Your task to perform on an android device: Open calendar and show me the third week of next month Image 0: 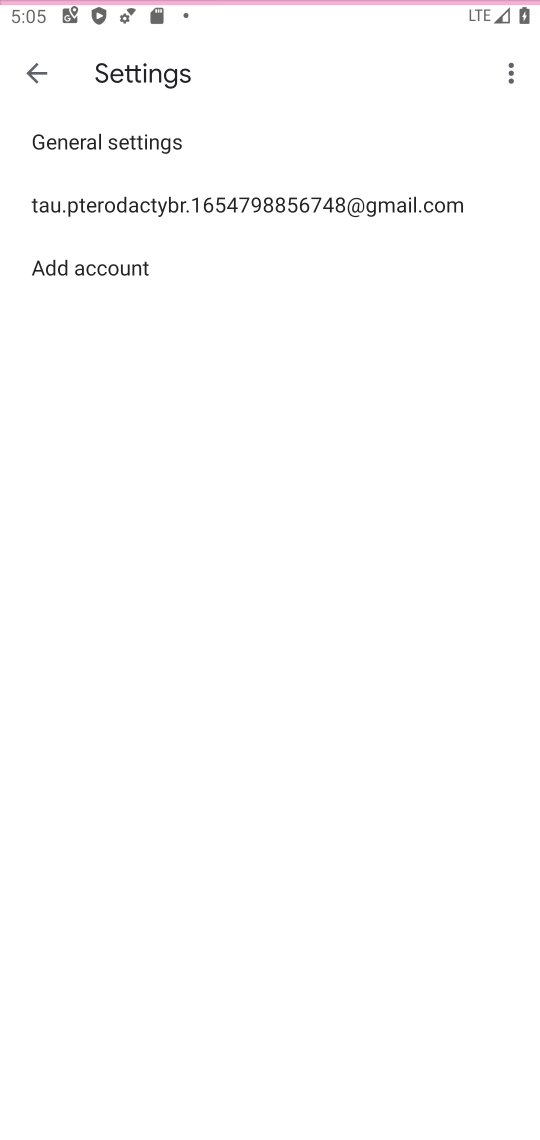
Step 0: press home button
Your task to perform on an android device: Open calendar and show me the third week of next month Image 1: 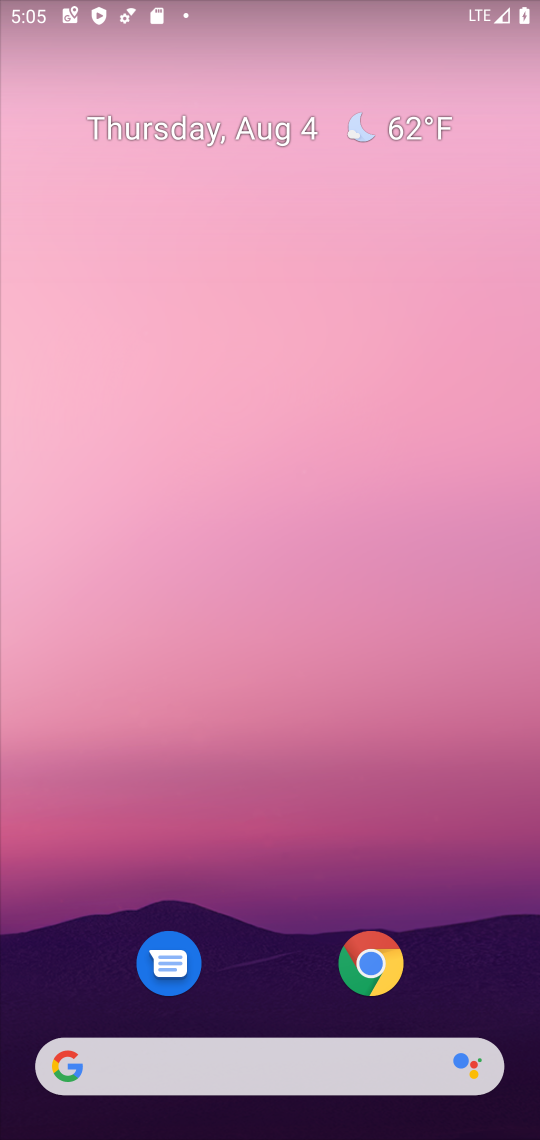
Step 1: drag from (288, 899) to (239, 233)
Your task to perform on an android device: Open calendar and show me the third week of next month Image 2: 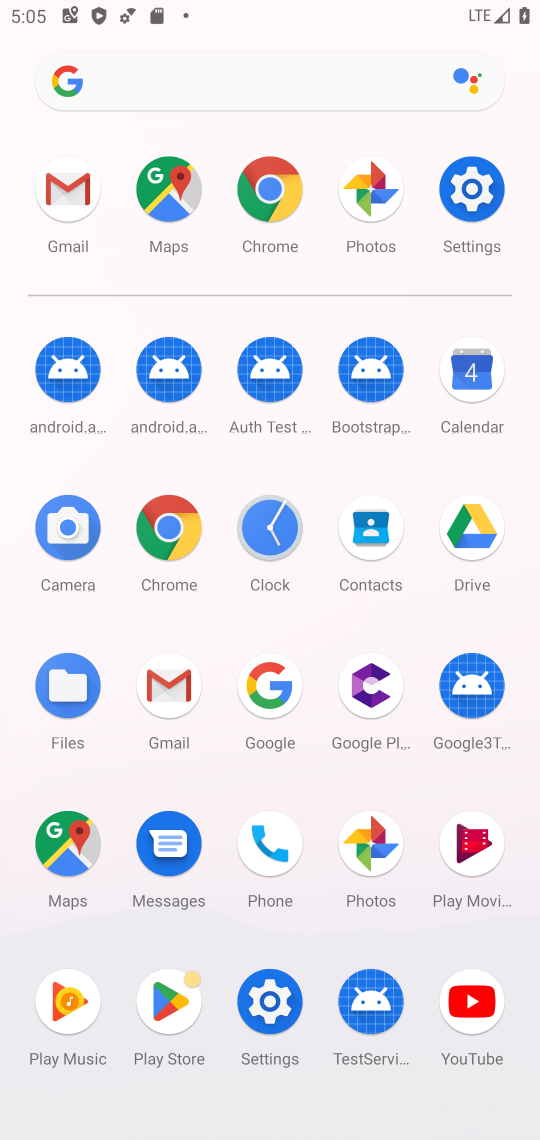
Step 2: click (472, 376)
Your task to perform on an android device: Open calendar and show me the third week of next month Image 3: 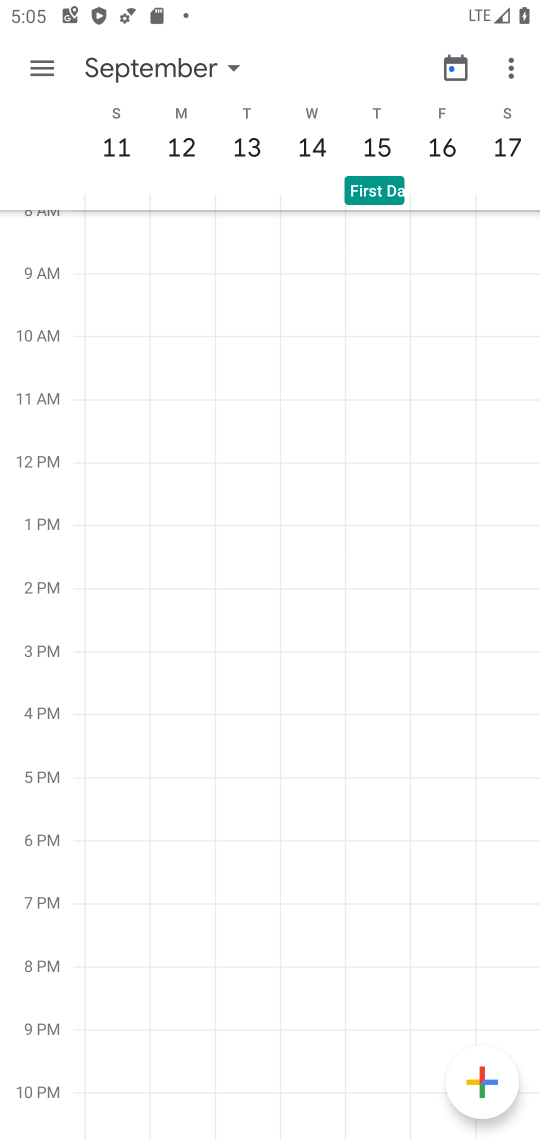
Step 3: click (234, 84)
Your task to perform on an android device: Open calendar and show me the third week of next month Image 4: 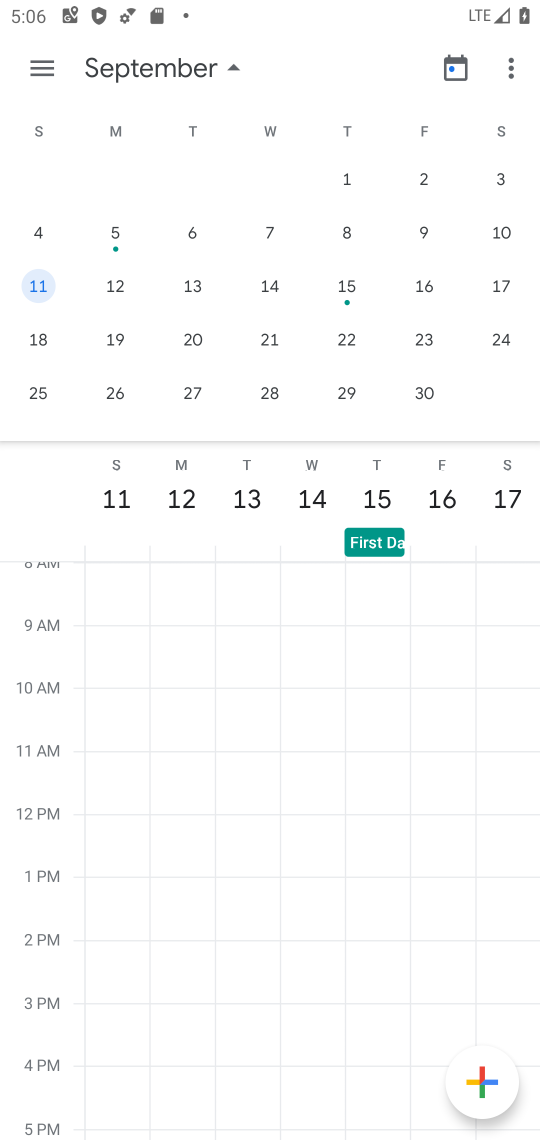
Step 4: task complete